Your task to perform on an android device: Open Google Chrome and click the shortcut for Amazon.com Image 0: 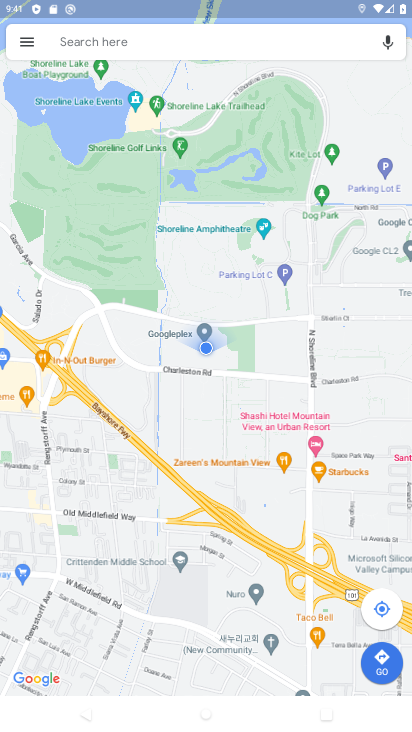
Step 0: press home button
Your task to perform on an android device: Open Google Chrome and click the shortcut for Amazon.com Image 1: 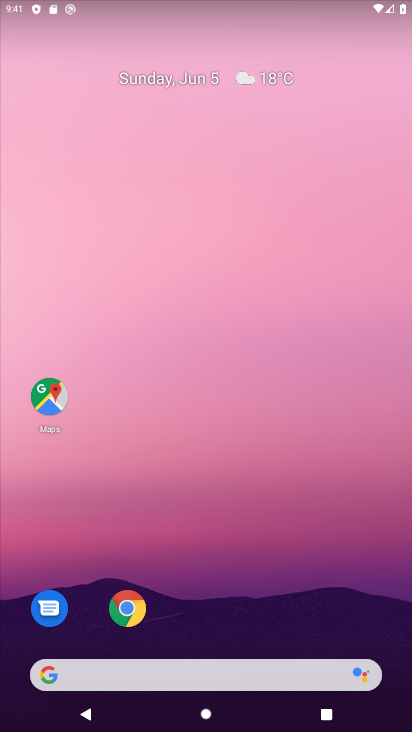
Step 1: click (122, 602)
Your task to perform on an android device: Open Google Chrome and click the shortcut for Amazon.com Image 2: 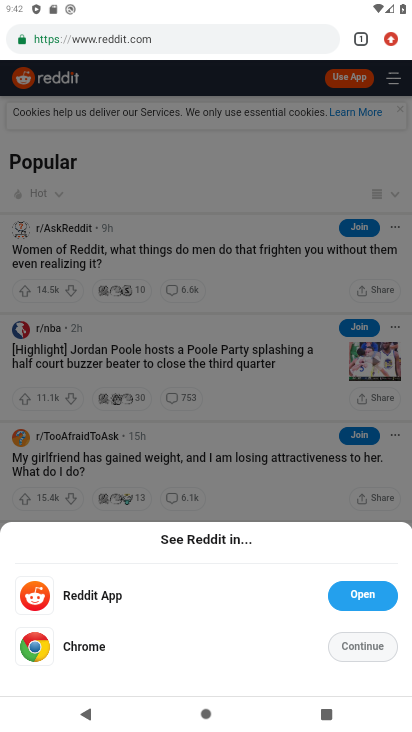
Step 2: click (122, 44)
Your task to perform on an android device: Open Google Chrome and click the shortcut for Amazon.com Image 3: 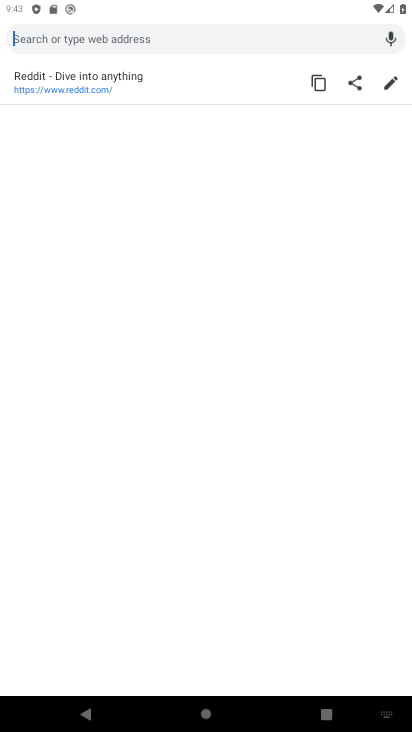
Step 3: type "amazon.com"
Your task to perform on an android device: Open Google Chrome and click the shortcut for Amazon.com Image 4: 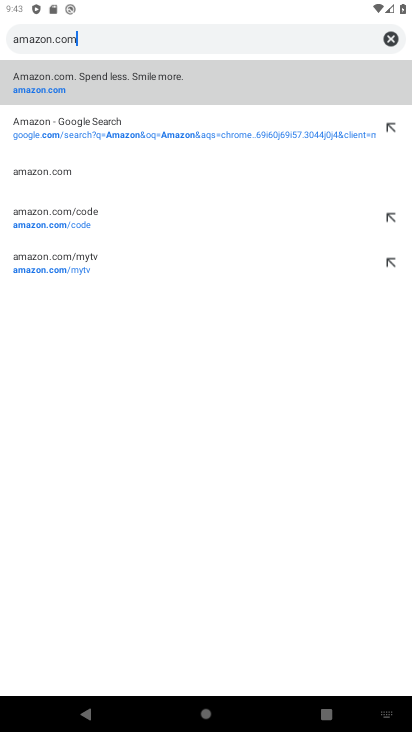
Step 4: click (206, 90)
Your task to perform on an android device: Open Google Chrome and click the shortcut for Amazon.com Image 5: 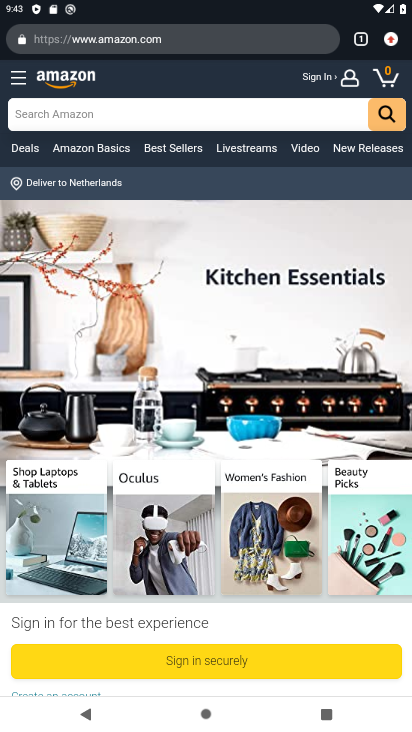
Step 5: task complete